Your task to perform on an android device: show emergency info Image 0: 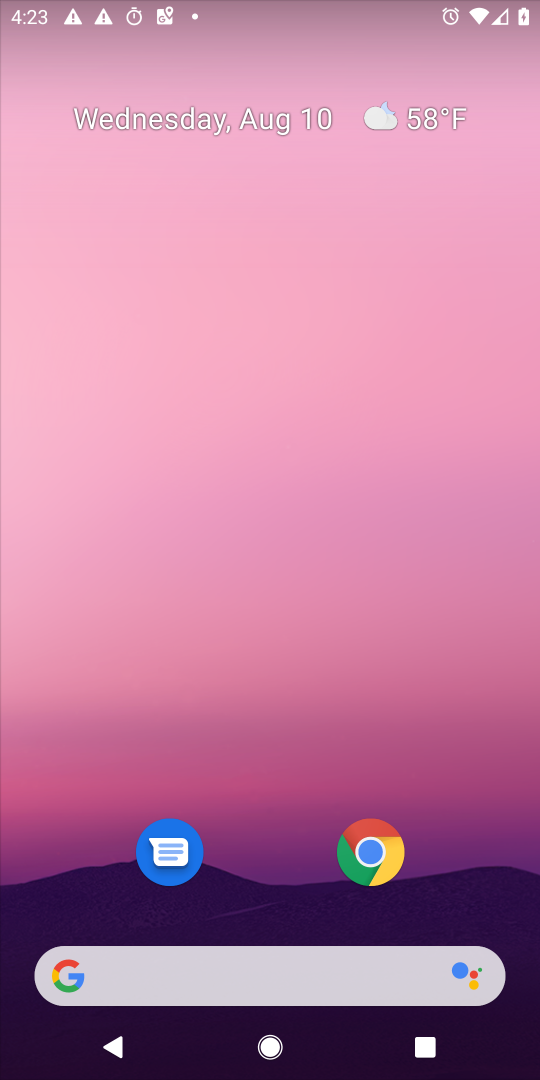
Step 0: drag from (292, 836) to (25, 208)
Your task to perform on an android device: show emergency info Image 1: 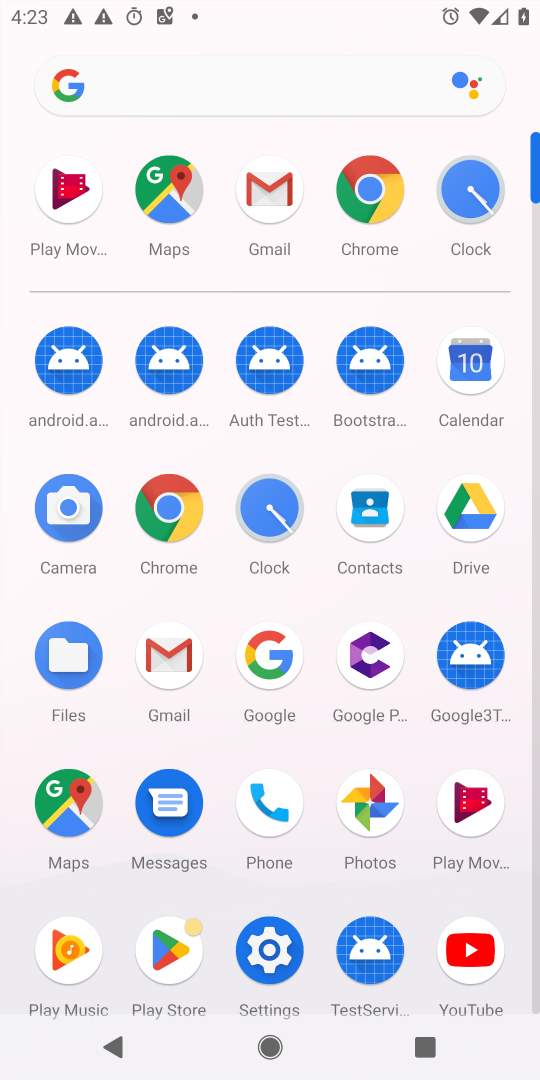
Step 1: click (252, 946)
Your task to perform on an android device: show emergency info Image 2: 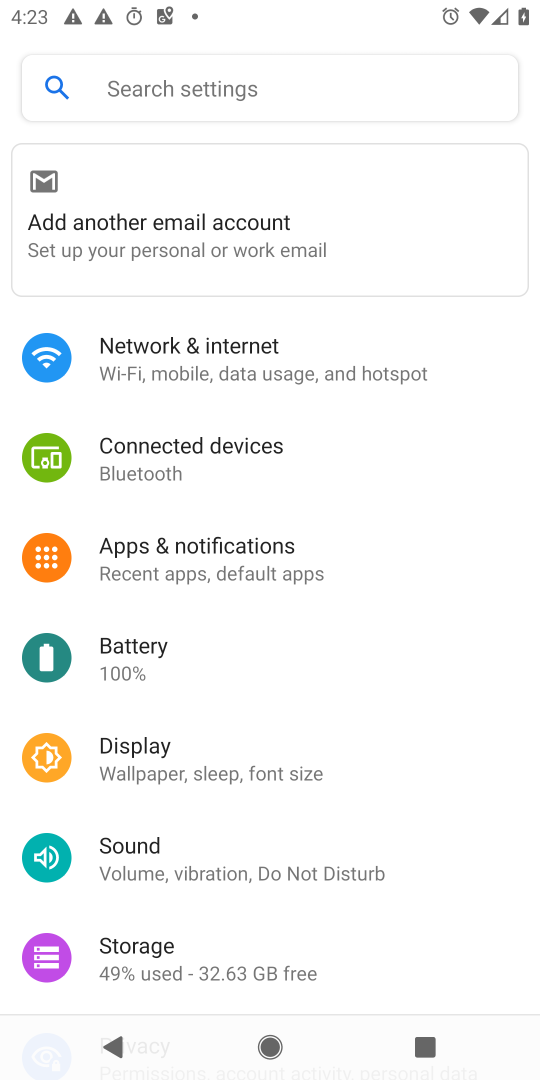
Step 2: drag from (238, 947) to (0, 374)
Your task to perform on an android device: show emergency info Image 3: 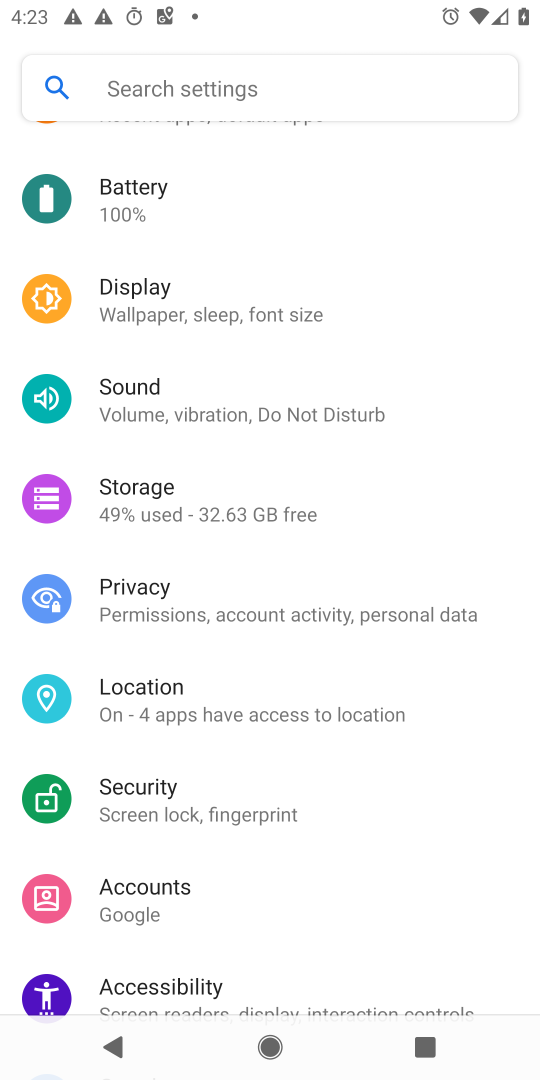
Step 3: drag from (482, 883) to (20, 124)
Your task to perform on an android device: show emergency info Image 4: 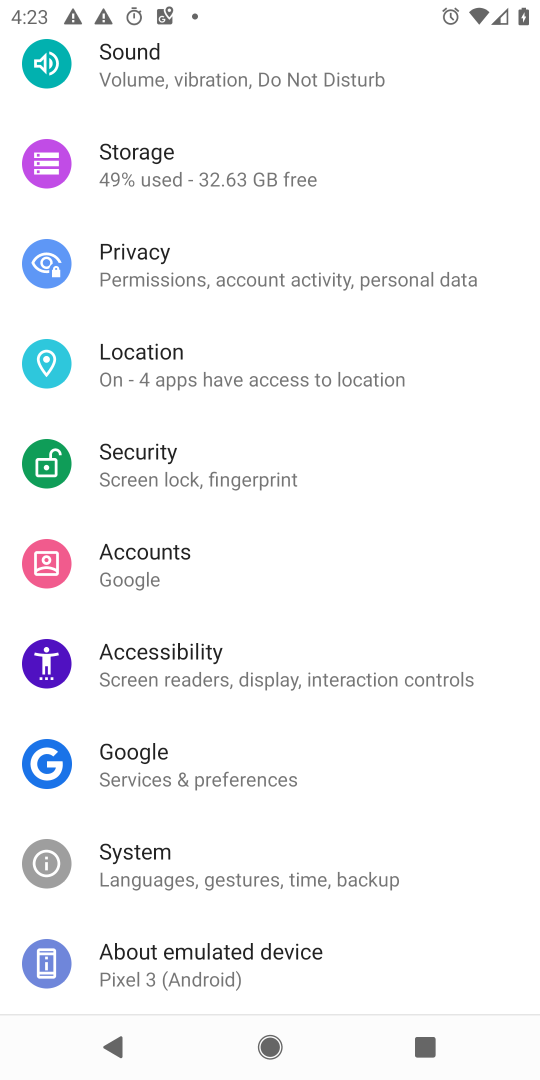
Step 4: click (189, 963)
Your task to perform on an android device: show emergency info Image 5: 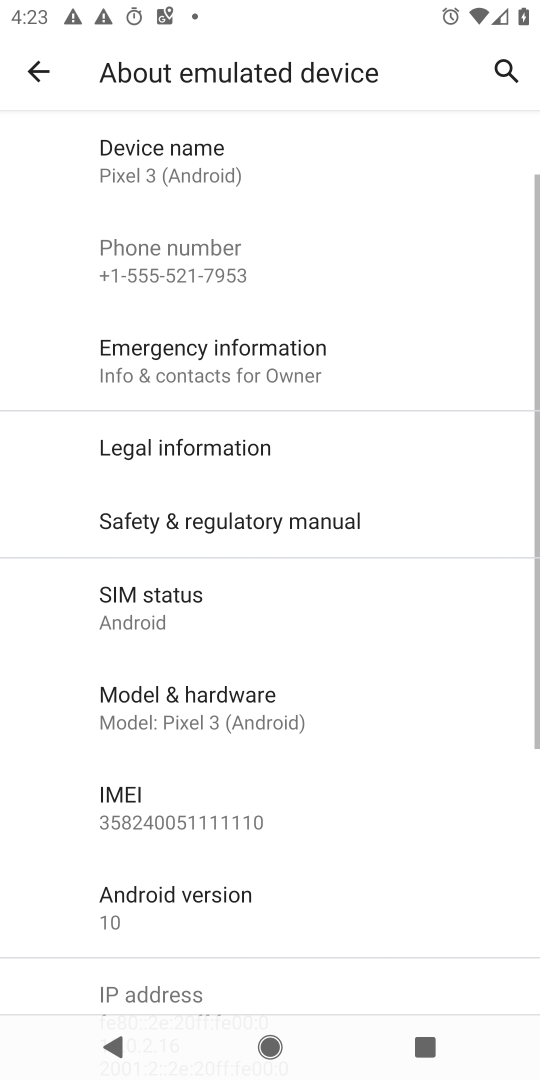
Step 5: click (157, 357)
Your task to perform on an android device: show emergency info Image 6: 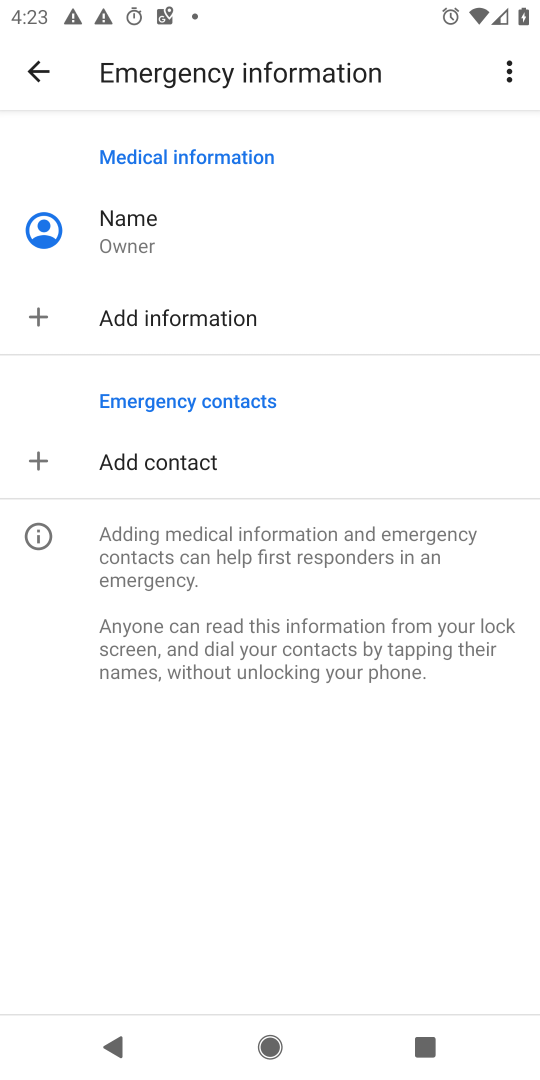
Step 6: task complete